Your task to perform on an android device: delete the emails in spam in the gmail app Image 0: 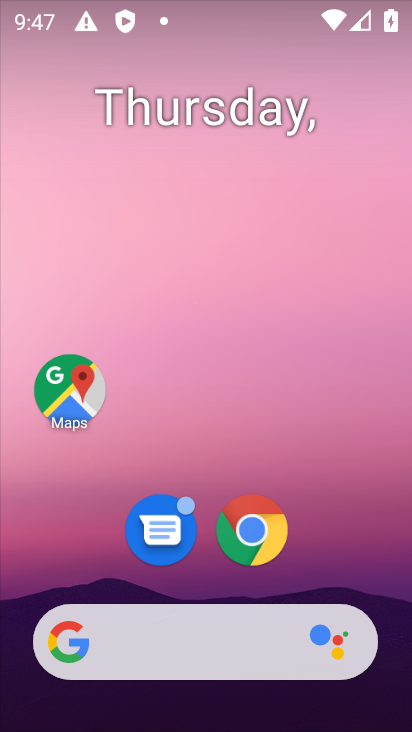
Step 0: press home button
Your task to perform on an android device: delete the emails in spam in the gmail app Image 1: 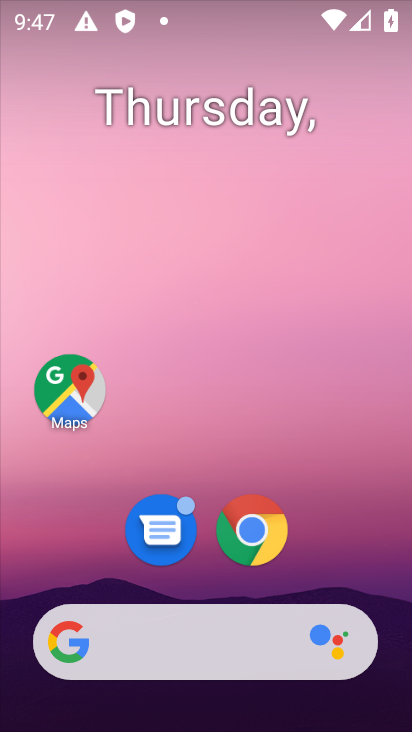
Step 1: drag from (354, 529) to (331, 0)
Your task to perform on an android device: delete the emails in spam in the gmail app Image 2: 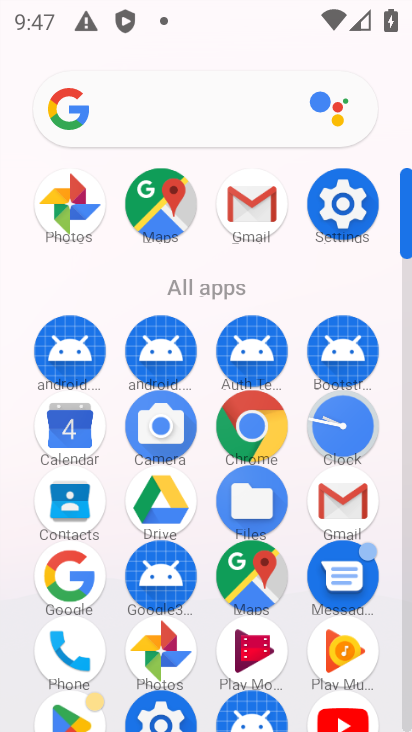
Step 2: click (332, 498)
Your task to perform on an android device: delete the emails in spam in the gmail app Image 3: 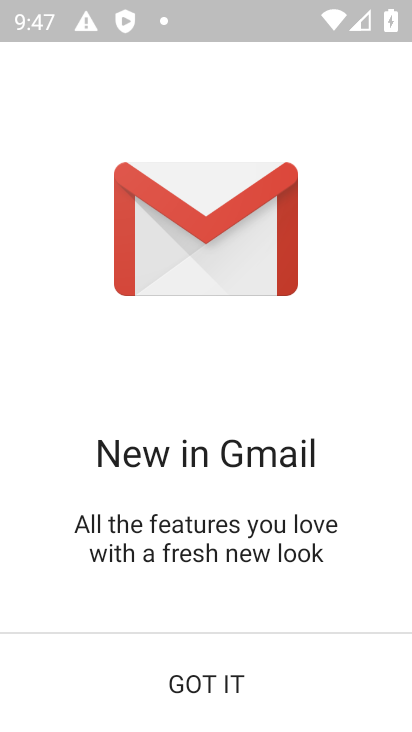
Step 3: click (234, 687)
Your task to perform on an android device: delete the emails in spam in the gmail app Image 4: 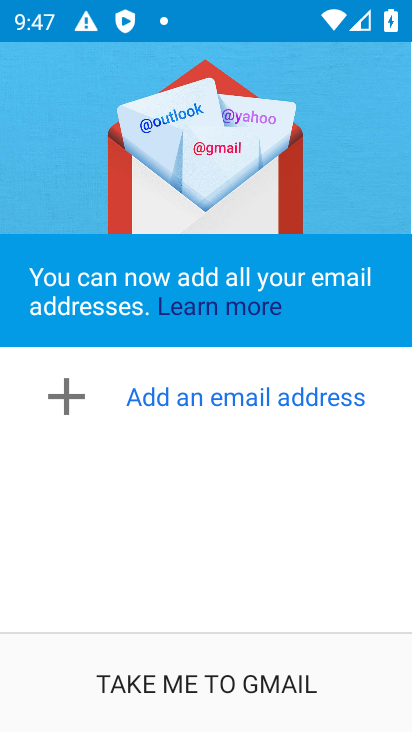
Step 4: click (233, 679)
Your task to perform on an android device: delete the emails in spam in the gmail app Image 5: 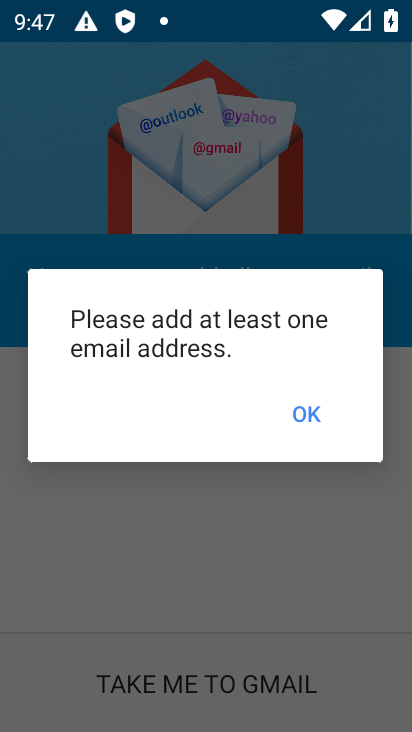
Step 5: click (310, 401)
Your task to perform on an android device: delete the emails in spam in the gmail app Image 6: 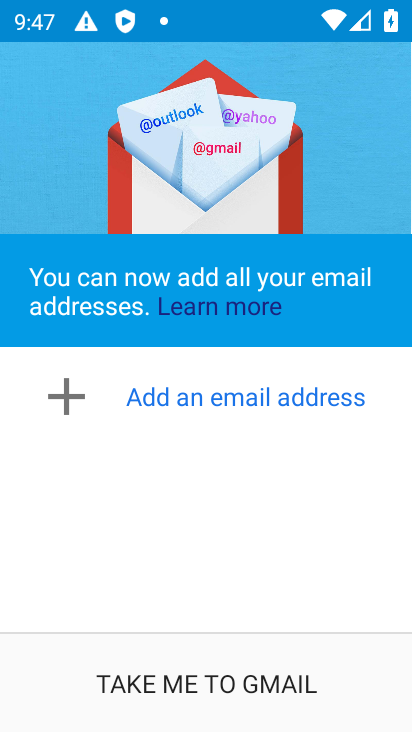
Step 6: task complete